Your task to perform on an android device: set default search engine in the chrome app Image 0: 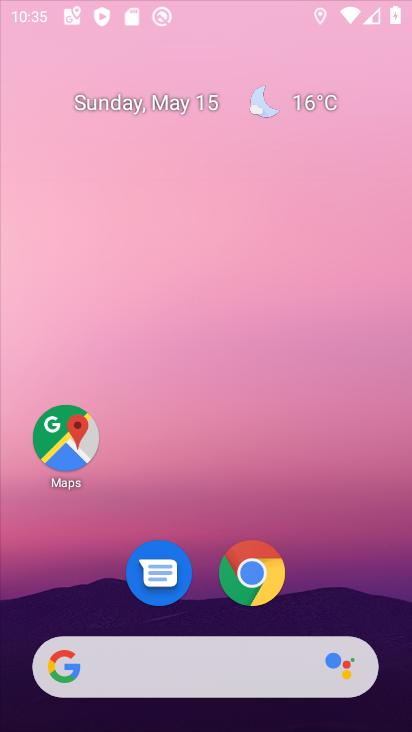
Step 0: press home button
Your task to perform on an android device: set default search engine in the chrome app Image 1: 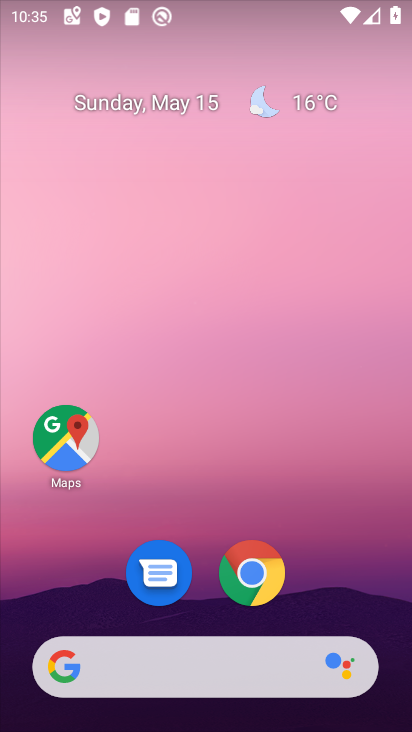
Step 1: click (279, 574)
Your task to perform on an android device: set default search engine in the chrome app Image 2: 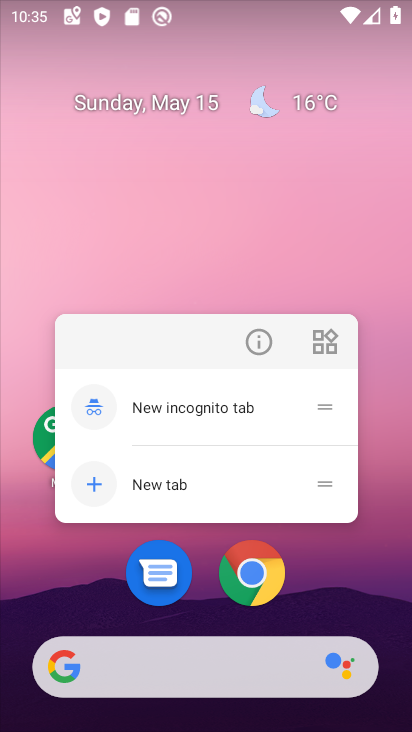
Step 2: click (279, 574)
Your task to perform on an android device: set default search engine in the chrome app Image 3: 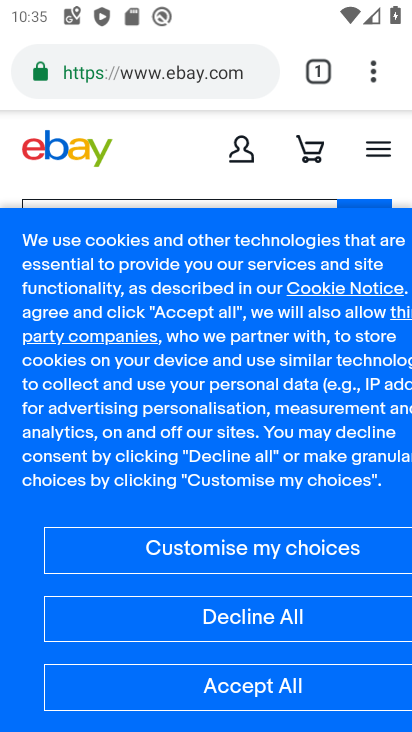
Step 3: drag from (368, 67) to (168, 583)
Your task to perform on an android device: set default search engine in the chrome app Image 4: 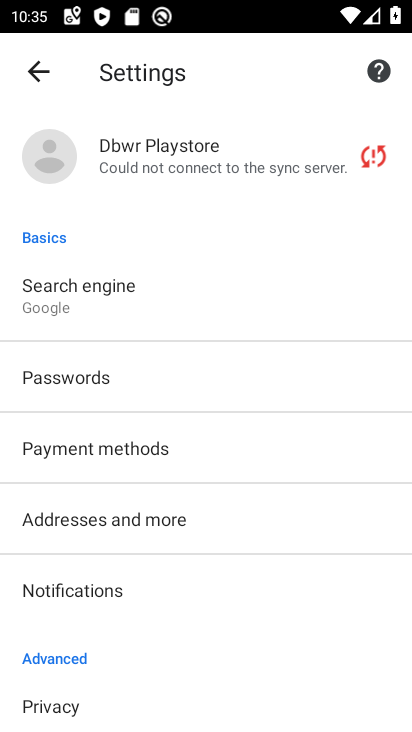
Step 4: click (149, 302)
Your task to perform on an android device: set default search engine in the chrome app Image 5: 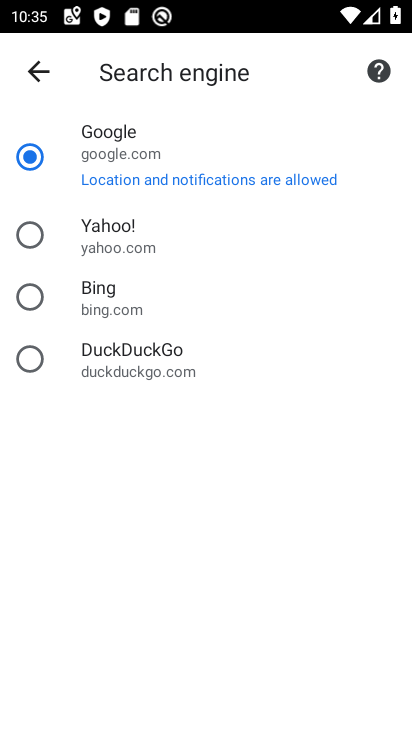
Step 5: task complete